Your task to perform on an android device: turn on location history Image 0: 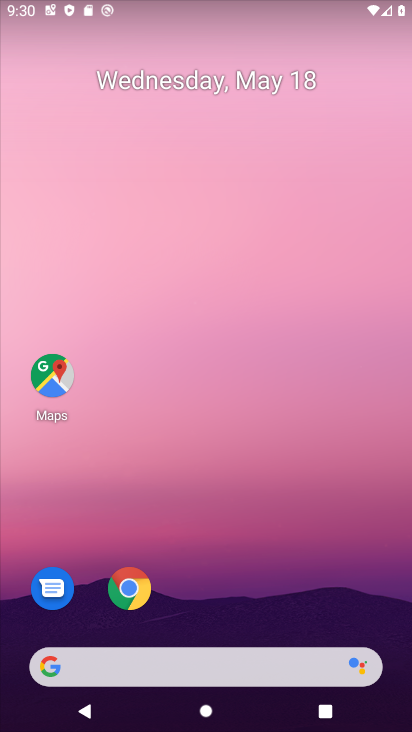
Step 0: drag from (251, 701) to (194, 302)
Your task to perform on an android device: turn on location history Image 1: 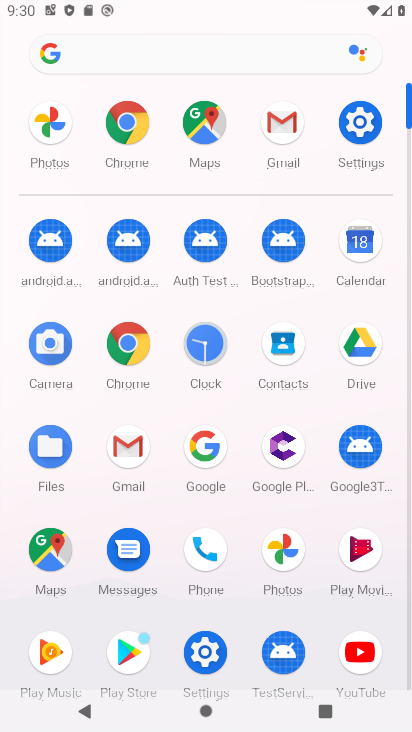
Step 1: click (350, 147)
Your task to perform on an android device: turn on location history Image 2: 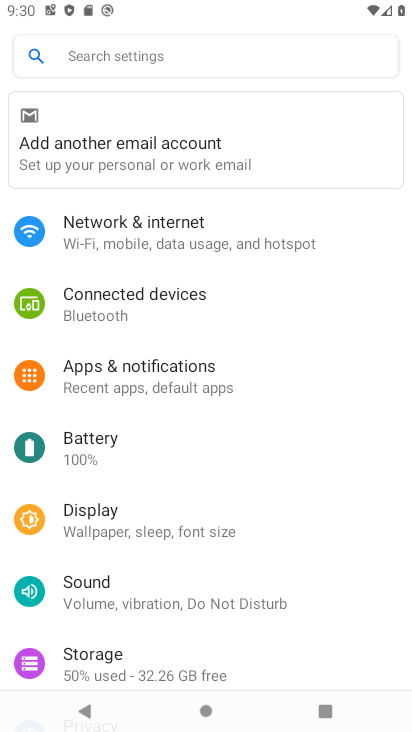
Step 2: click (146, 243)
Your task to perform on an android device: turn on location history Image 3: 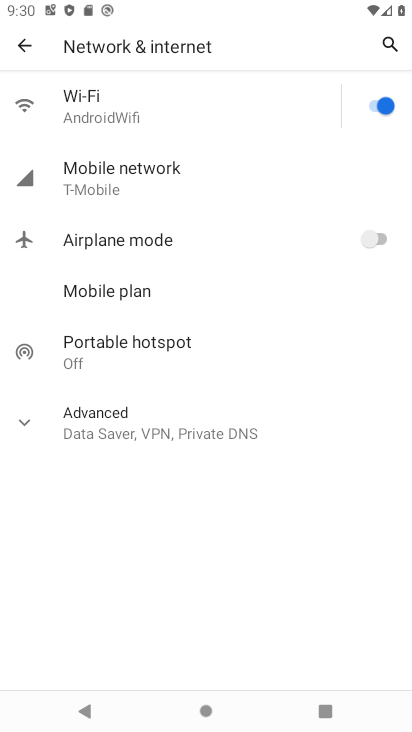
Step 3: click (18, 45)
Your task to perform on an android device: turn on location history Image 4: 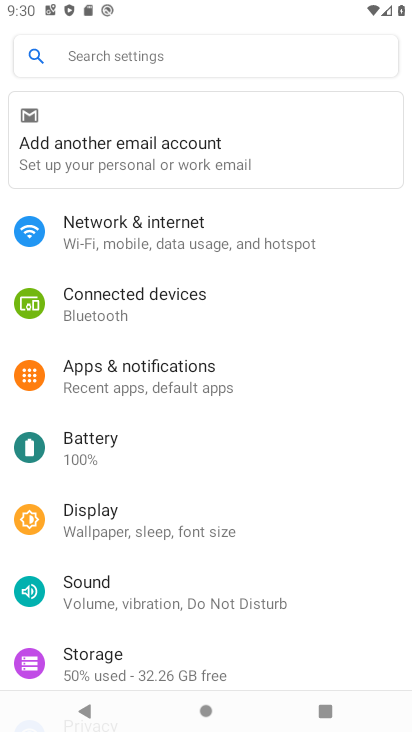
Step 4: click (218, 71)
Your task to perform on an android device: turn on location history Image 5: 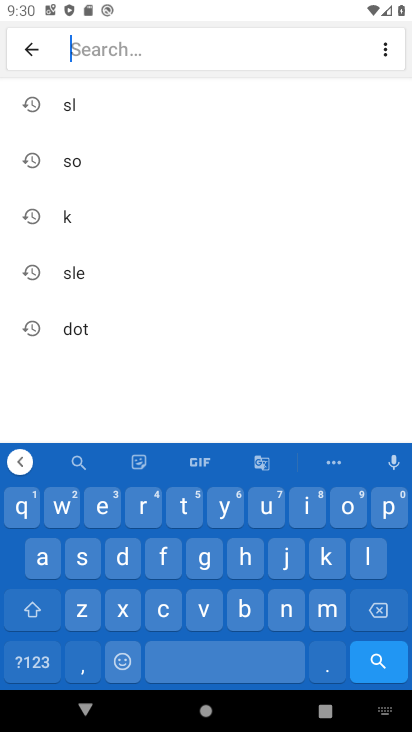
Step 5: click (369, 553)
Your task to perform on an android device: turn on location history Image 6: 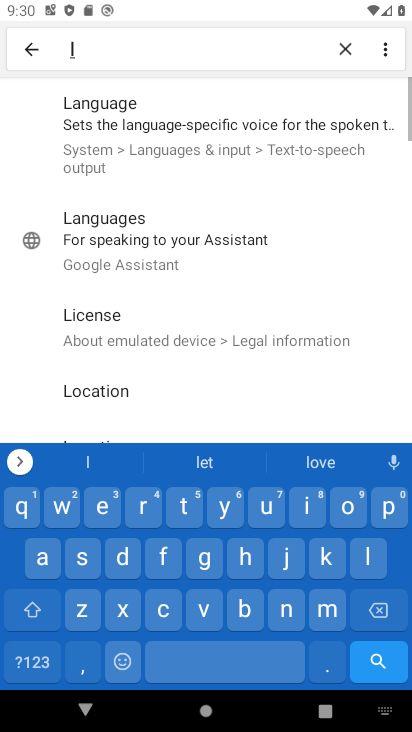
Step 6: click (348, 519)
Your task to perform on an android device: turn on location history Image 7: 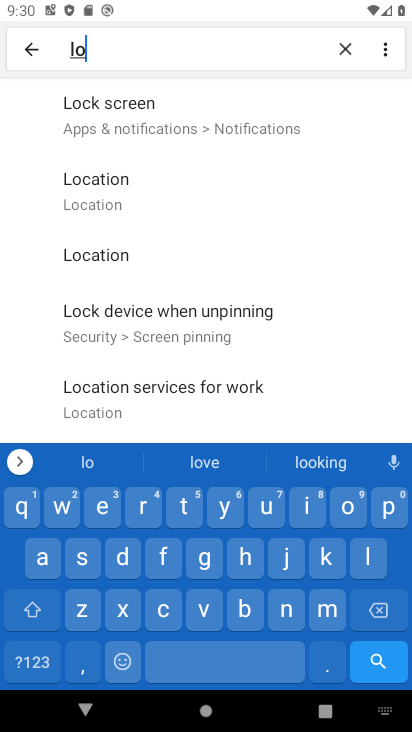
Step 7: click (115, 191)
Your task to perform on an android device: turn on location history Image 8: 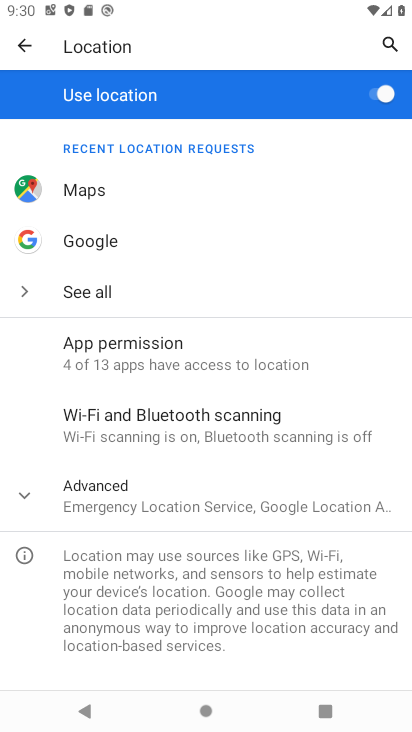
Step 8: click (49, 475)
Your task to perform on an android device: turn on location history Image 9: 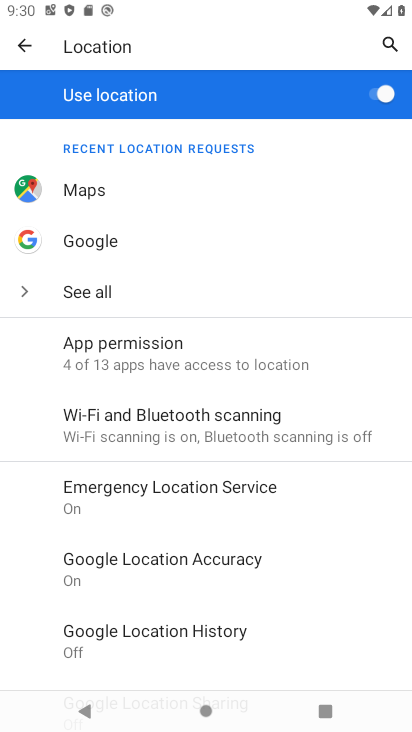
Step 9: click (140, 629)
Your task to perform on an android device: turn on location history Image 10: 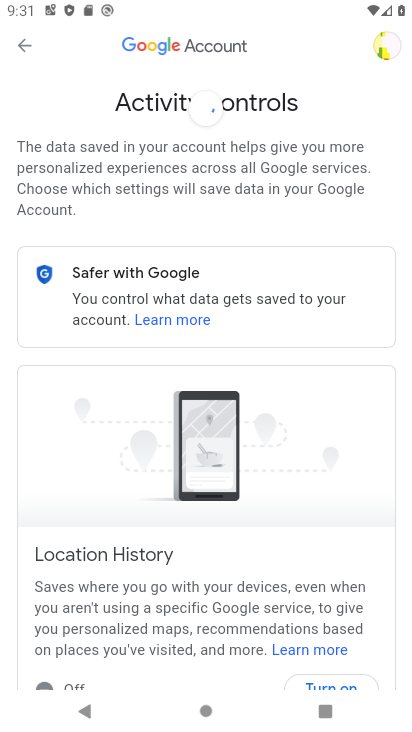
Step 10: task complete